Your task to perform on an android device: What is the capital of Germany? Image 0: 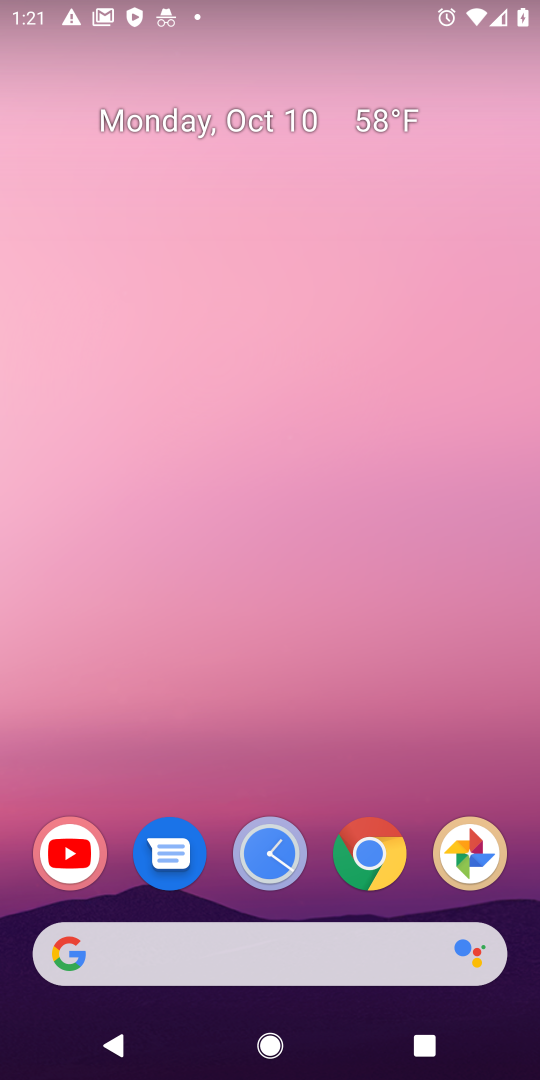
Step 0: click (380, 849)
Your task to perform on an android device: What is the capital of Germany? Image 1: 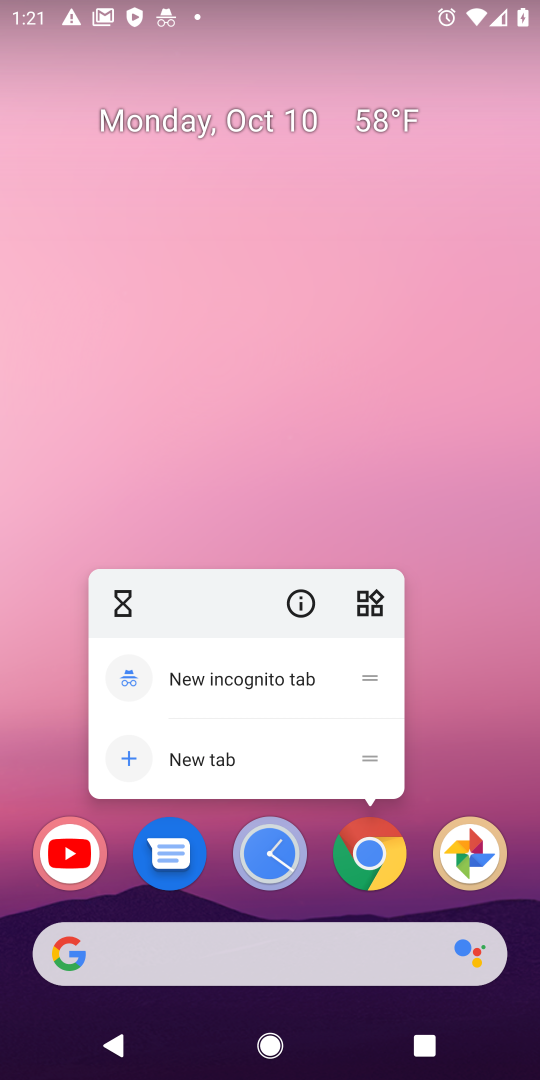
Step 1: click (380, 849)
Your task to perform on an android device: What is the capital of Germany? Image 2: 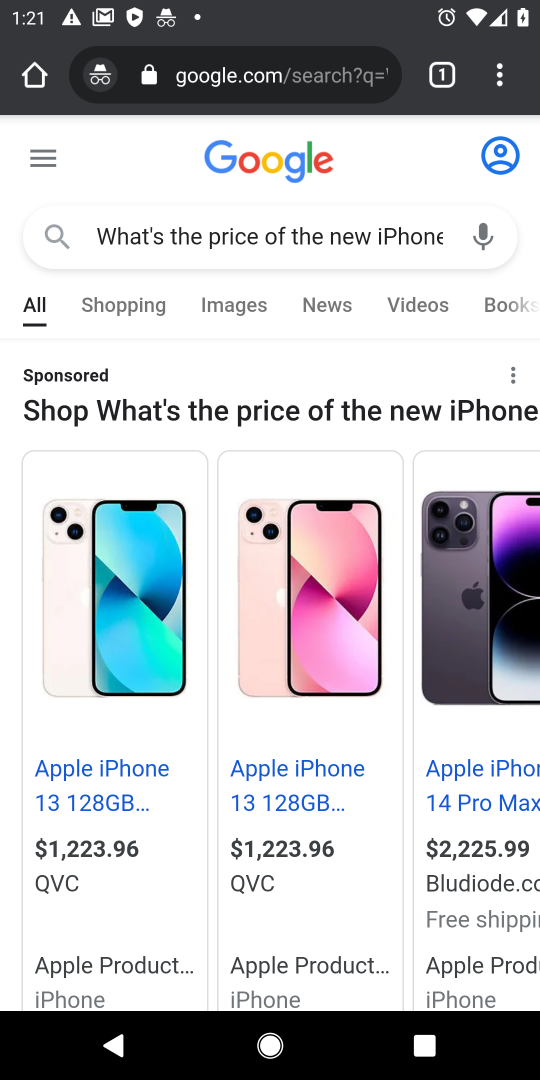
Step 2: click (357, 244)
Your task to perform on an android device: What is the capital of Germany? Image 3: 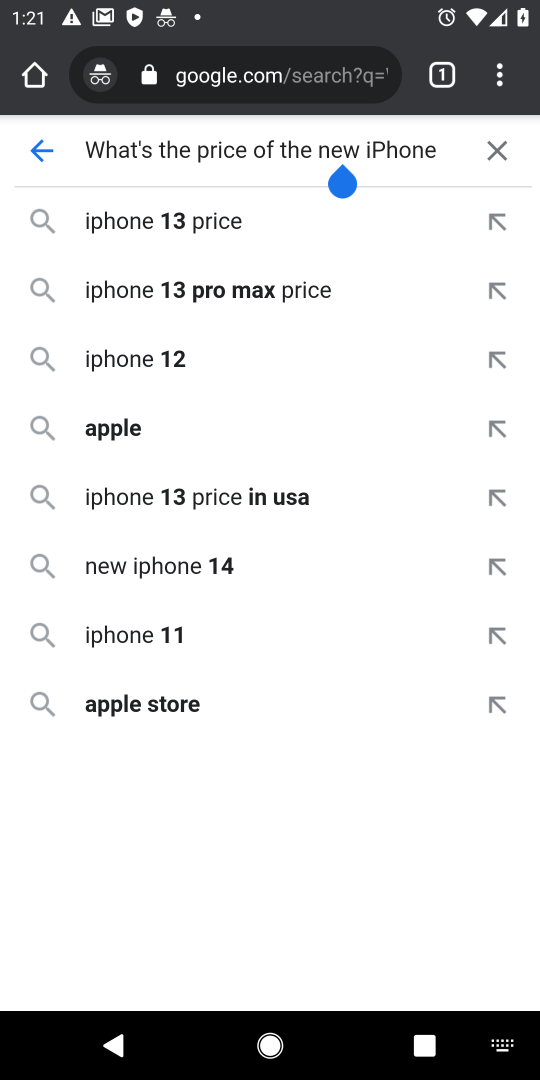
Step 3: click (494, 149)
Your task to perform on an android device: What is the capital of Germany? Image 4: 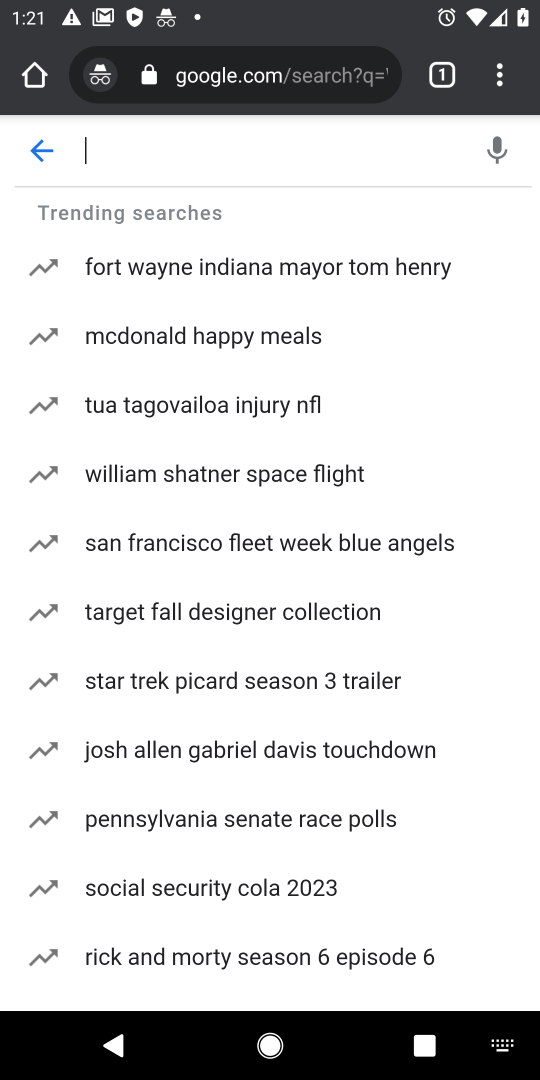
Step 4: type "What is the capital of Germany?"
Your task to perform on an android device: What is the capital of Germany? Image 5: 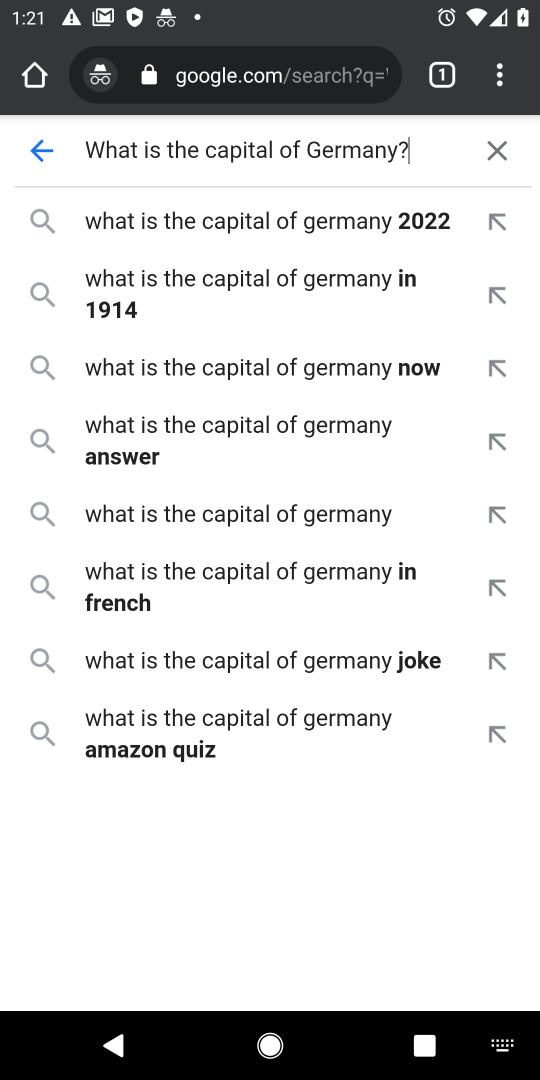
Step 5: press enter
Your task to perform on an android device: What is the capital of Germany? Image 6: 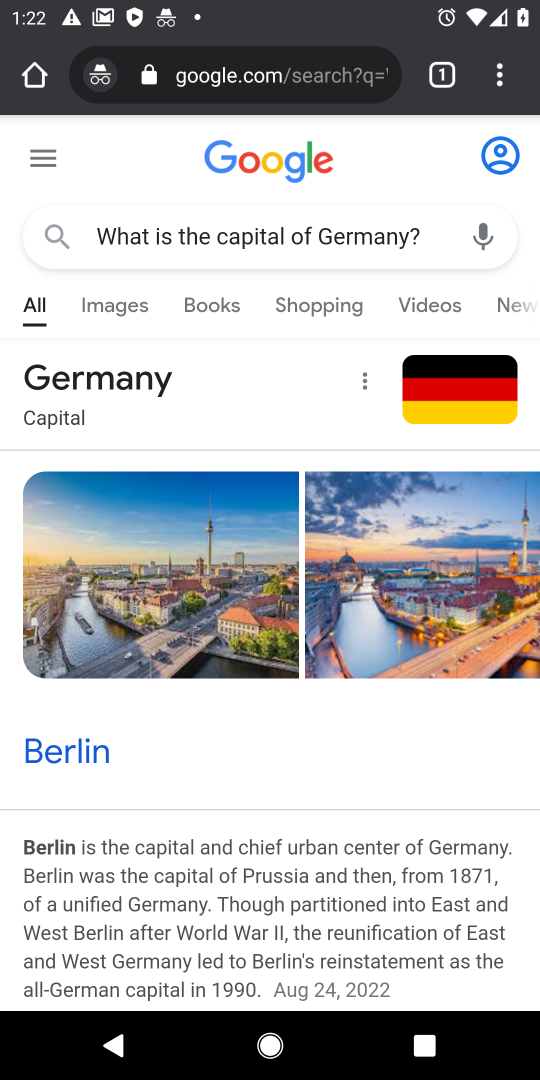
Step 6: task complete